Your task to perform on an android device: open app "Venmo" (install if not already installed), go to login, and select forgot password Image 0: 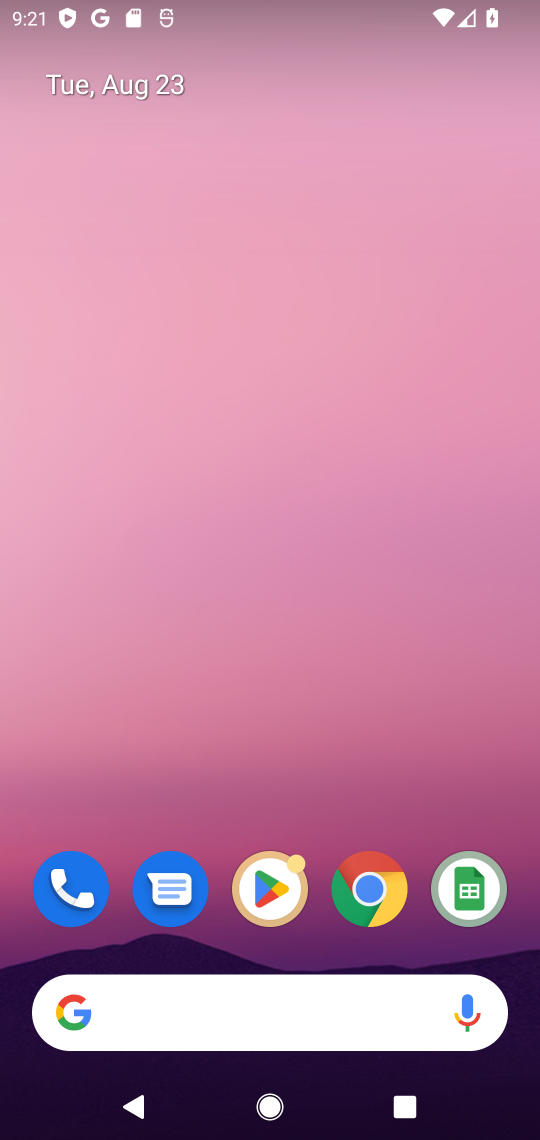
Step 0: click (280, 891)
Your task to perform on an android device: open app "Venmo" (install if not already installed), go to login, and select forgot password Image 1: 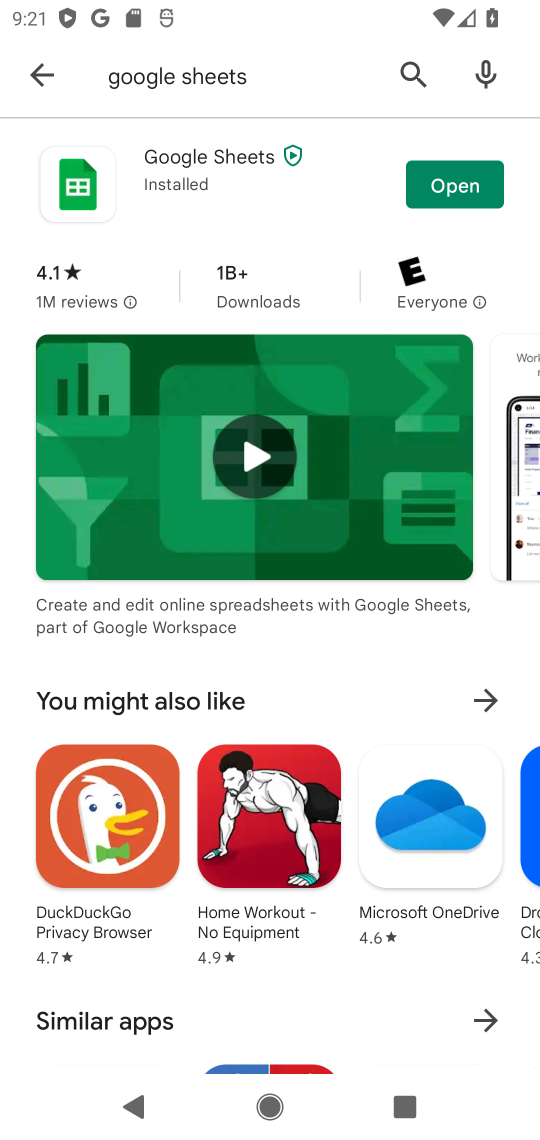
Step 1: click (33, 67)
Your task to perform on an android device: open app "Venmo" (install if not already installed), go to login, and select forgot password Image 2: 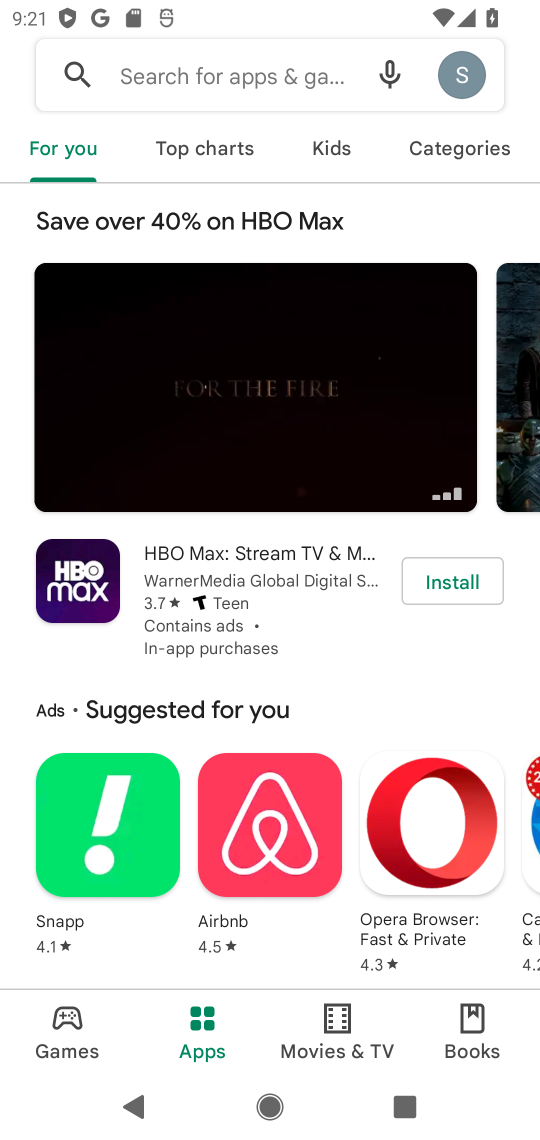
Step 2: click (210, 81)
Your task to perform on an android device: open app "Venmo" (install if not already installed), go to login, and select forgot password Image 3: 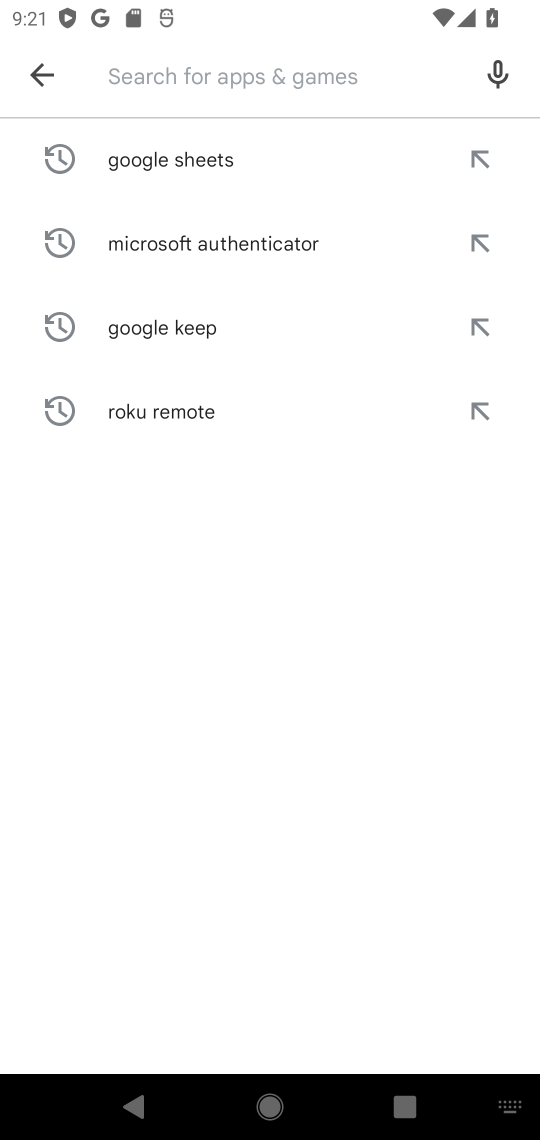
Step 3: type "Venmo"
Your task to perform on an android device: open app "Venmo" (install if not already installed), go to login, and select forgot password Image 4: 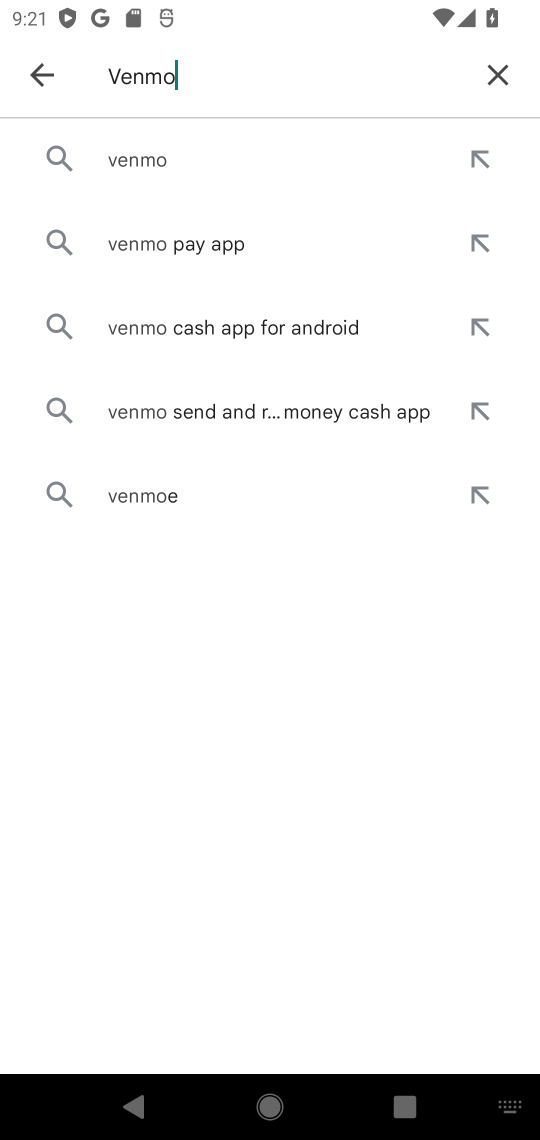
Step 4: click (146, 161)
Your task to perform on an android device: open app "Venmo" (install if not already installed), go to login, and select forgot password Image 5: 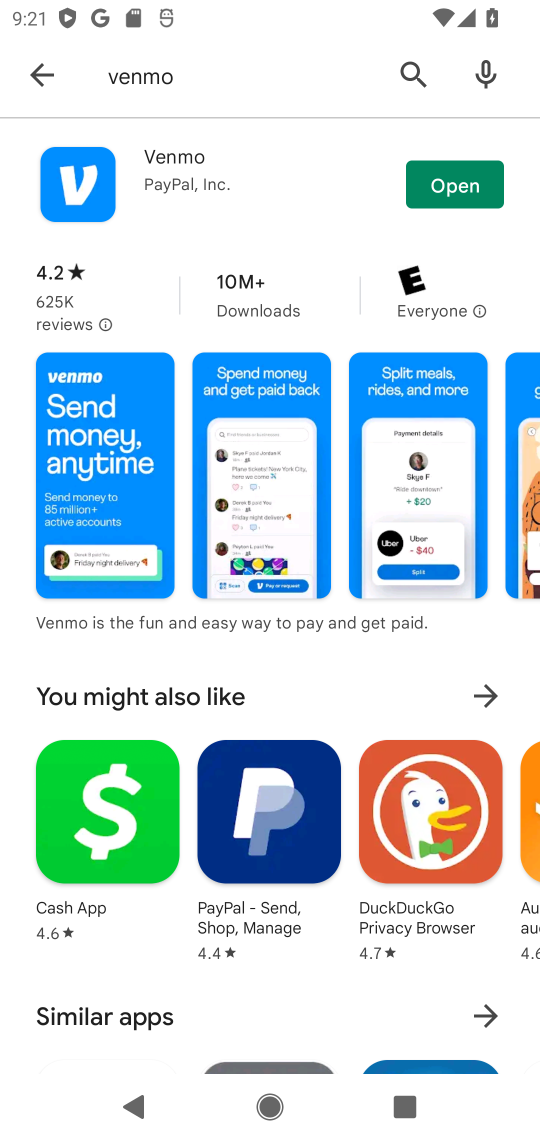
Step 5: click (440, 197)
Your task to perform on an android device: open app "Venmo" (install if not already installed), go to login, and select forgot password Image 6: 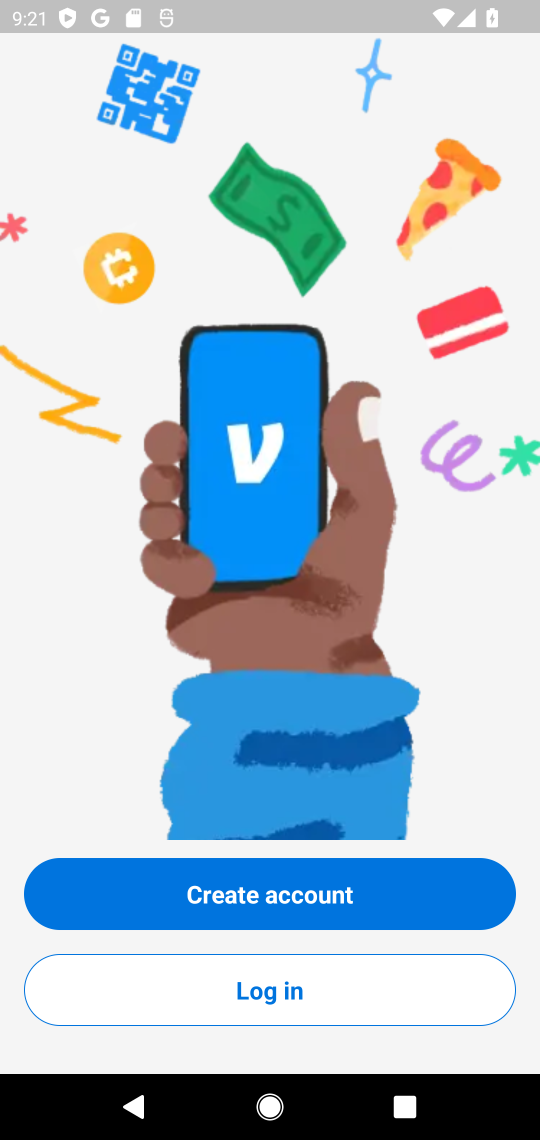
Step 6: click (269, 967)
Your task to perform on an android device: open app "Venmo" (install if not already installed), go to login, and select forgot password Image 7: 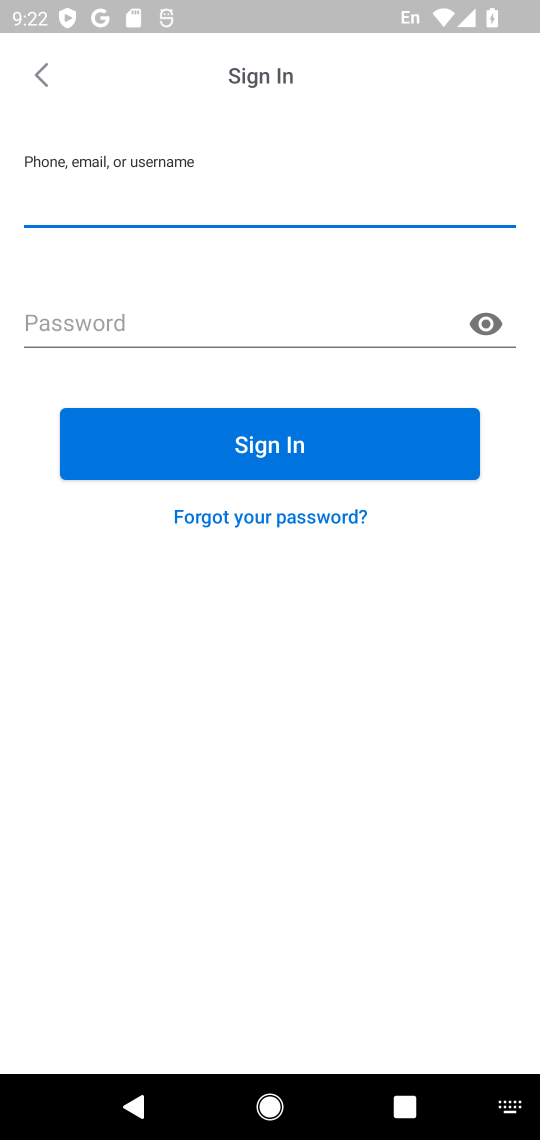
Step 7: click (323, 518)
Your task to perform on an android device: open app "Venmo" (install if not already installed), go to login, and select forgot password Image 8: 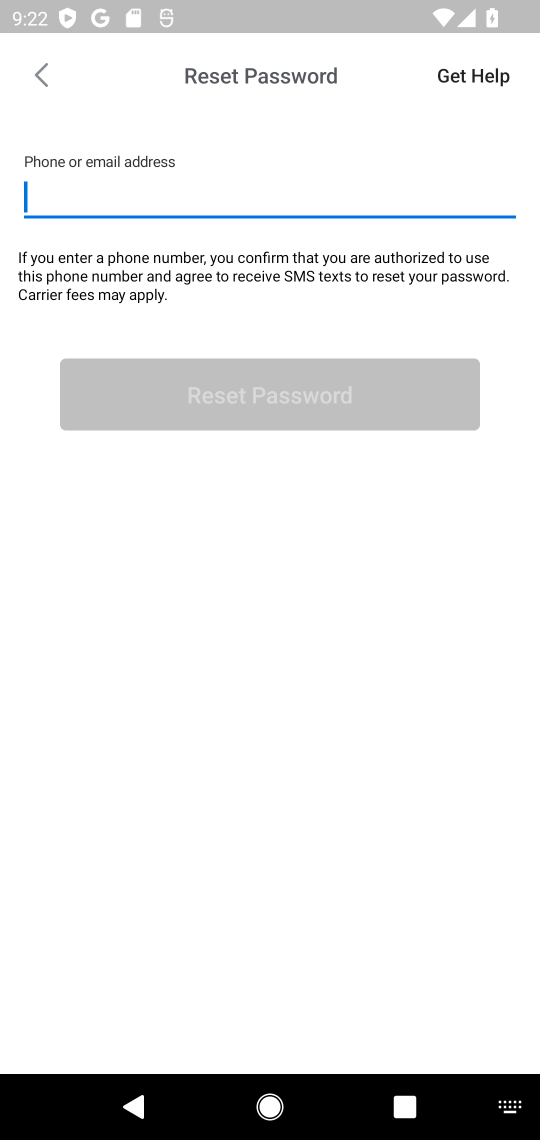
Step 8: task complete